Your task to perform on an android device: Do I have any events tomorrow? Image 0: 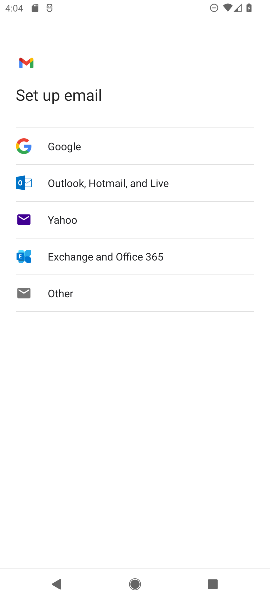
Step 0: press home button
Your task to perform on an android device: Do I have any events tomorrow? Image 1: 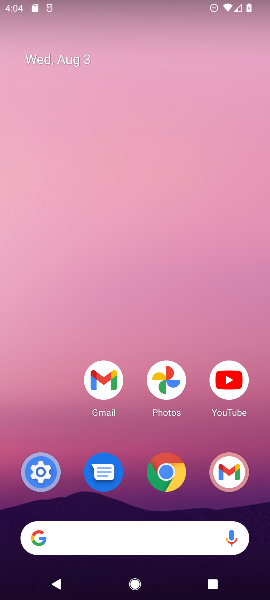
Step 1: drag from (250, 533) to (131, 77)
Your task to perform on an android device: Do I have any events tomorrow? Image 2: 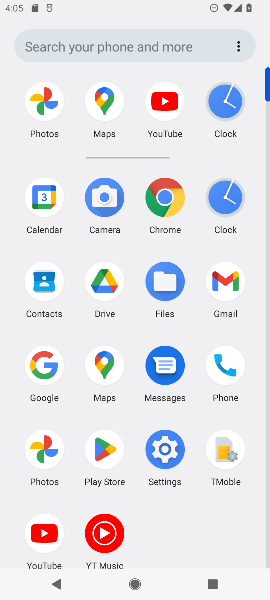
Step 2: click (44, 204)
Your task to perform on an android device: Do I have any events tomorrow? Image 3: 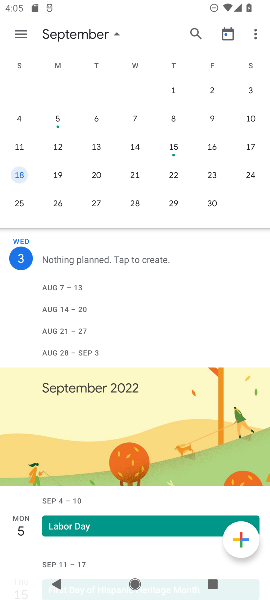
Step 3: task complete